Your task to perform on an android device: toggle javascript in the chrome app Image 0: 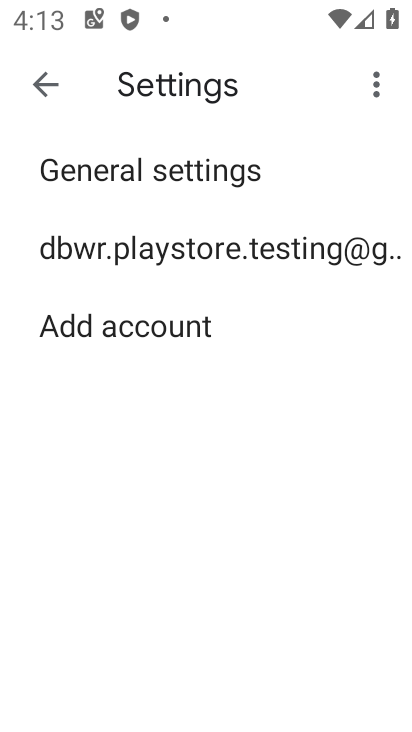
Step 0: press home button
Your task to perform on an android device: toggle javascript in the chrome app Image 1: 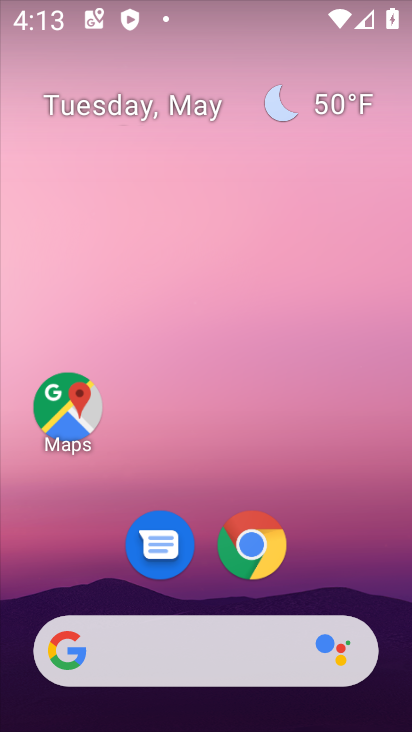
Step 1: drag from (196, 581) to (393, 507)
Your task to perform on an android device: toggle javascript in the chrome app Image 2: 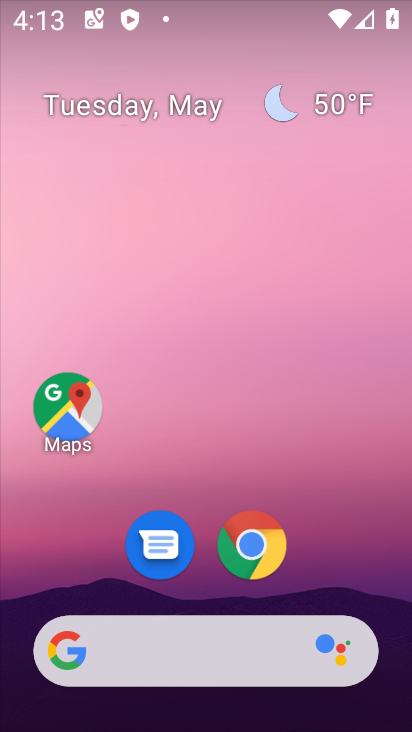
Step 2: click (255, 563)
Your task to perform on an android device: toggle javascript in the chrome app Image 3: 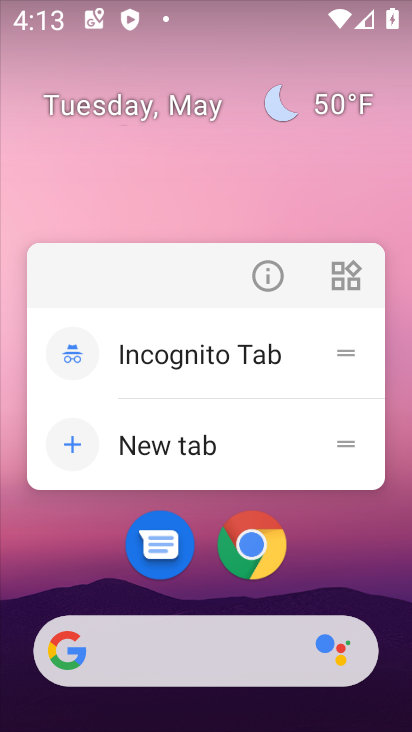
Step 3: click (255, 563)
Your task to perform on an android device: toggle javascript in the chrome app Image 4: 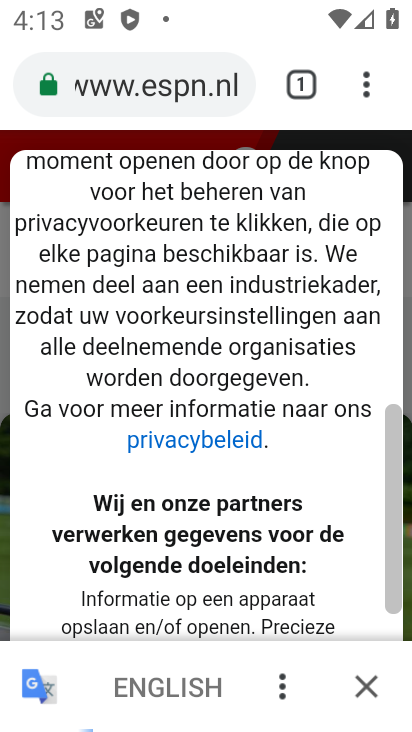
Step 4: click (370, 89)
Your task to perform on an android device: toggle javascript in the chrome app Image 5: 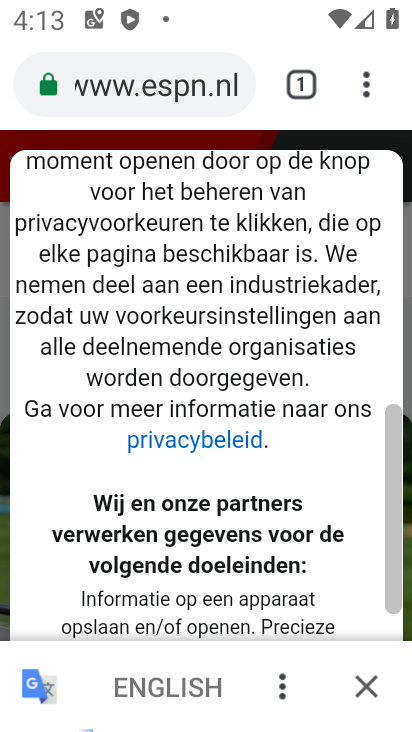
Step 5: click (370, 94)
Your task to perform on an android device: toggle javascript in the chrome app Image 6: 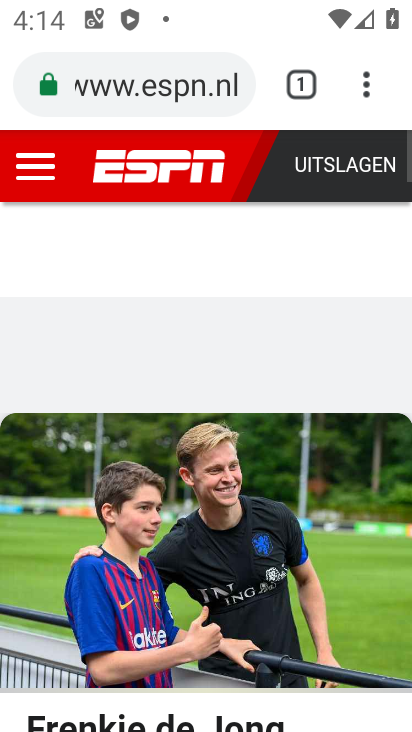
Step 6: click (379, 98)
Your task to perform on an android device: toggle javascript in the chrome app Image 7: 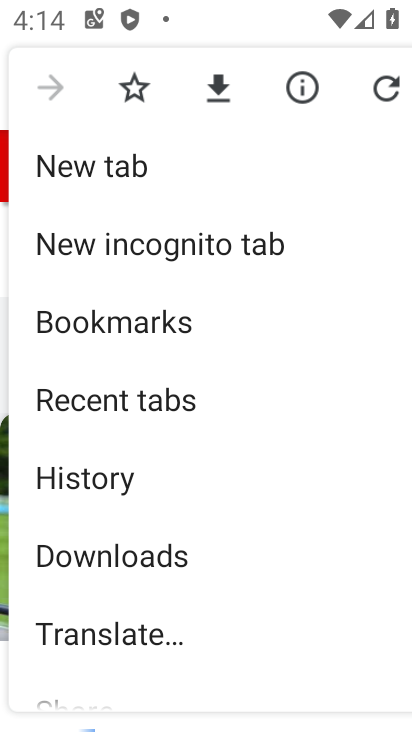
Step 7: drag from (161, 620) to (228, 322)
Your task to perform on an android device: toggle javascript in the chrome app Image 8: 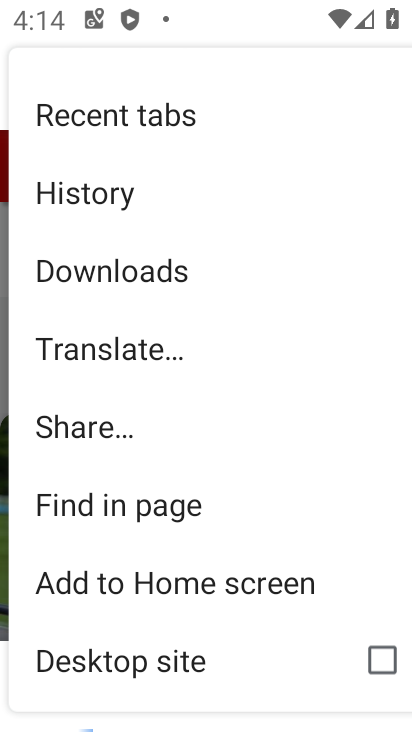
Step 8: drag from (117, 572) to (197, 201)
Your task to perform on an android device: toggle javascript in the chrome app Image 9: 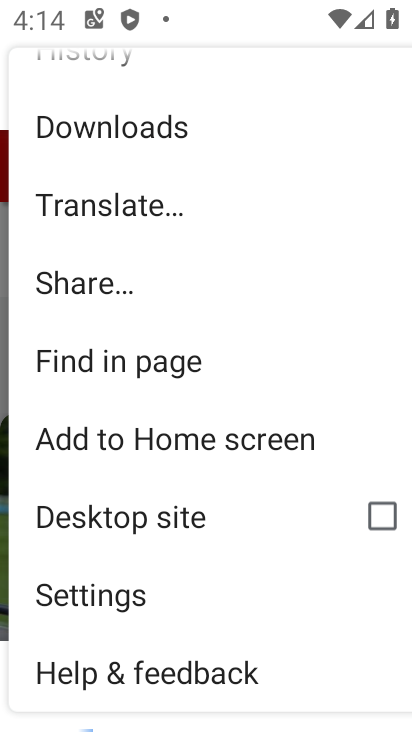
Step 9: click (112, 601)
Your task to perform on an android device: toggle javascript in the chrome app Image 10: 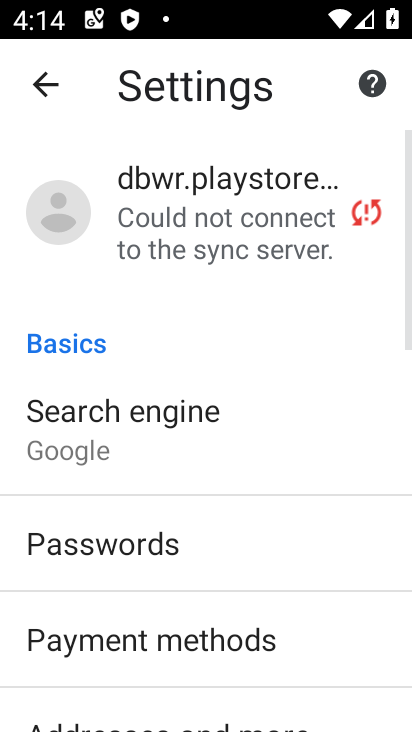
Step 10: drag from (115, 571) to (231, 207)
Your task to perform on an android device: toggle javascript in the chrome app Image 11: 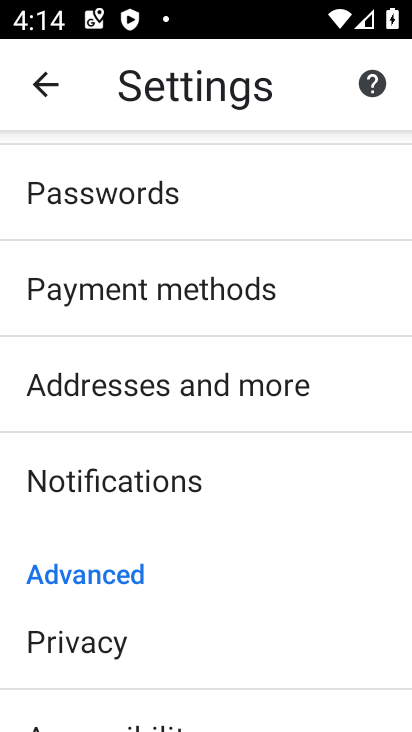
Step 11: drag from (199, 558) to (272, 213)
Your task to perform on an android device: toggle javascript in the chrome app Image 12: 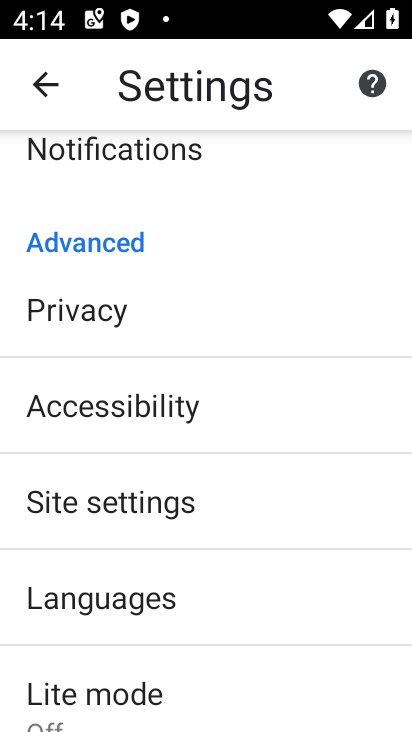
Step 12: click (136, 519)
Your task to perform on an android device: toggle javascript in the chrome app Image 13: 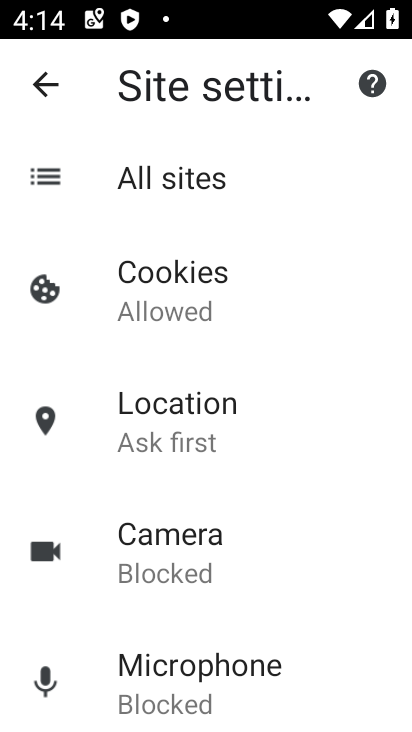
Step 13: drag from (182, 641) to (274, 282)
Your task to perform on an android device: toggle javascript in the chrome app Image 14: 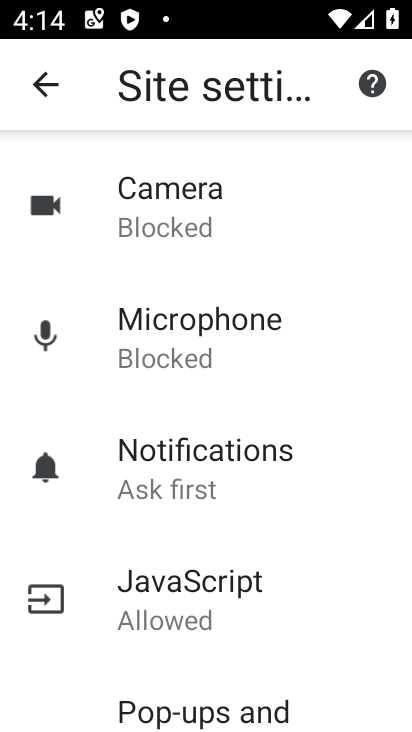
Step 14: click (206, 606)
Your task to perform on an android device: toggle javascript in the chrome app Image 15: 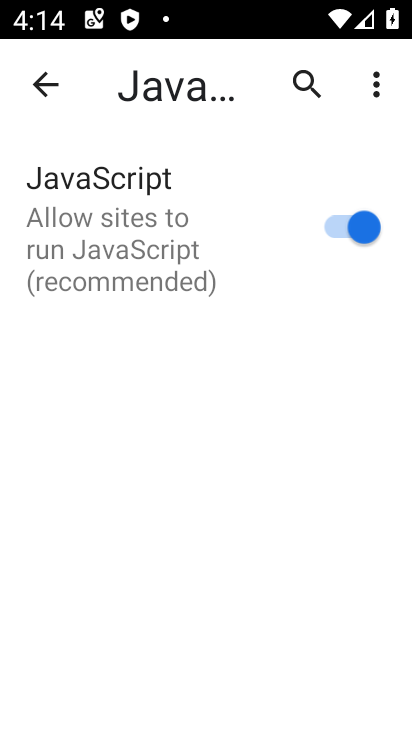
Step 15: click (353, 229)
Your task to perform on an android device: toggle javascript in the chrome app Image 16: 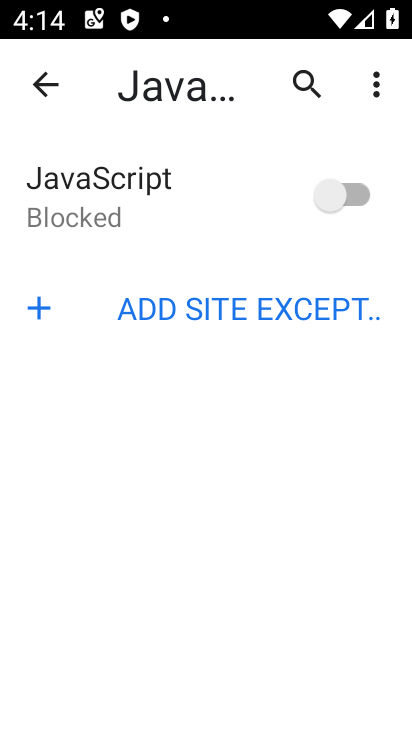
Step 16: task complete